Your task to perform on an android device: Show me popular videos on Youtube Image 0: 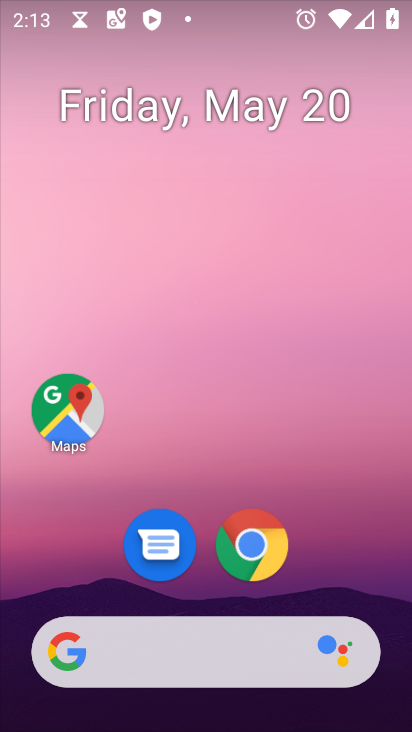
Step 0: drag from (346, 548) to (269, 158)
Your task to perform on an android device: Show me popular videos on Youtube Image 1: 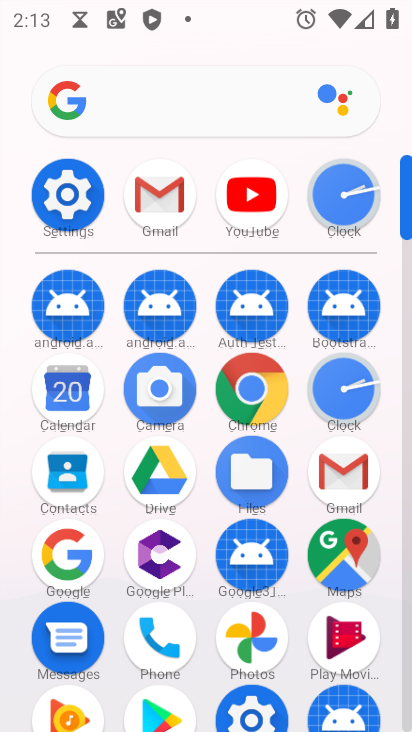
Step 1: click (256, 210)
Your task to perform on an android device: Show me popular videos on Youtube Image 2: 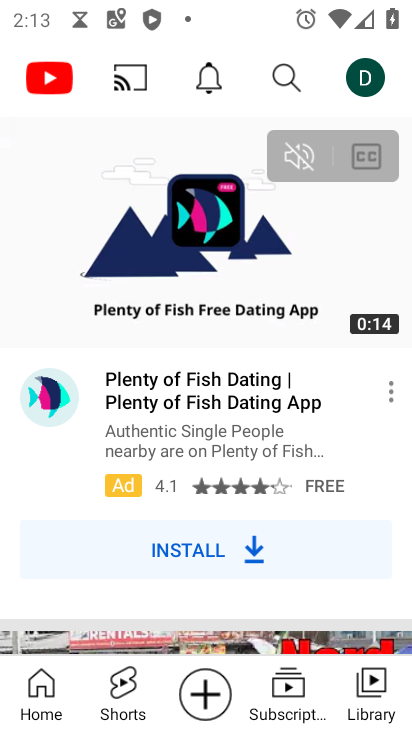
Step 2: click (281, 85)
Your task to perform on an android device: Show me popular videos on Youtube Image 3: 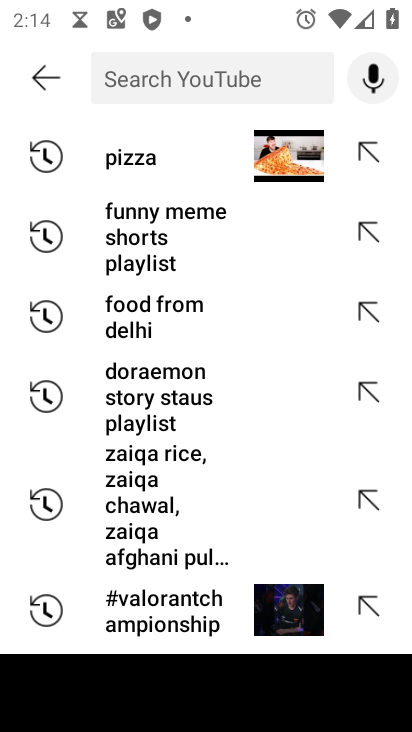
Step 3: type "popular videos"
Your task to perform on an android device: Show me popular videos on Youtube Image 4: 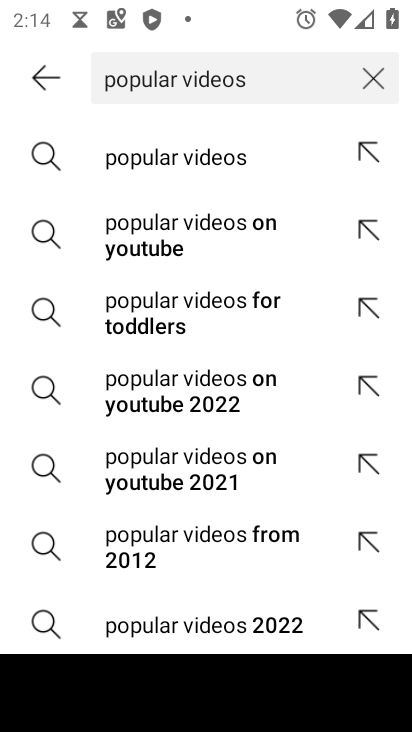
Step 4: click (215, 236)
Your task to perform on an android device: Show me popular videos on Youtube Image 5: 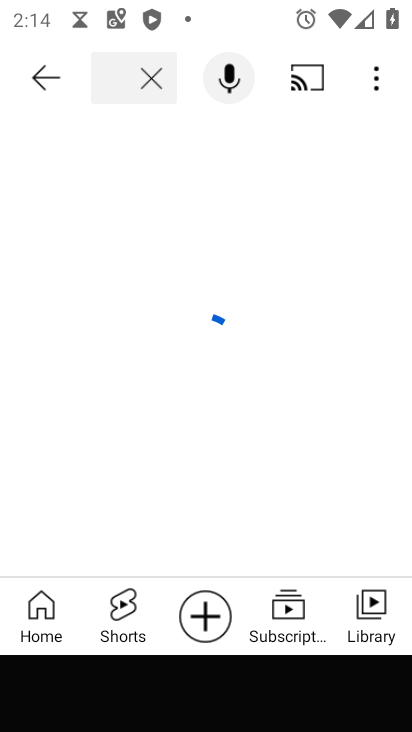
Step 5: click (215, 236)
Your task to perform on an android device: Show me popular videos on Youtube Image 6: 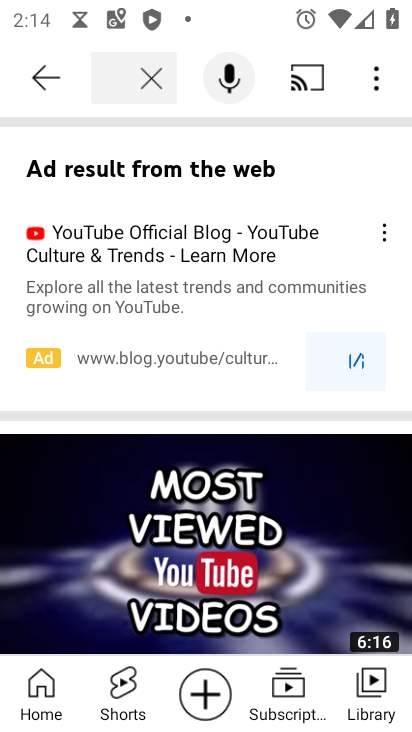
Step 6: task complete